Your task to perform on an android device: choose inbox layout in the gmail app Image 0: 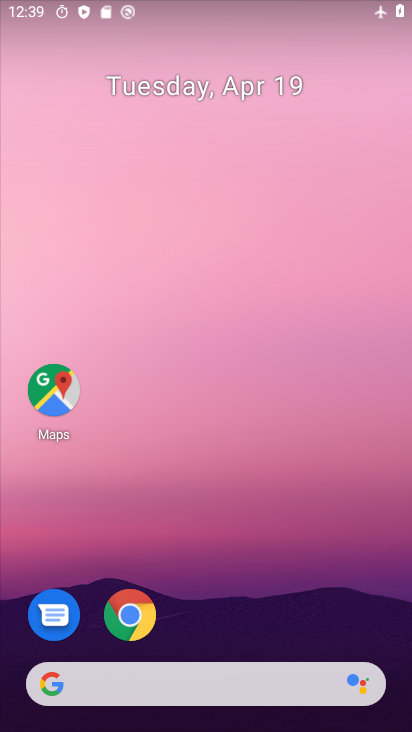
Step 0: drag from (387, 625) to (371, 100)
Your task to perform on an android device: choose inbox layout in the gmail app Image 1: 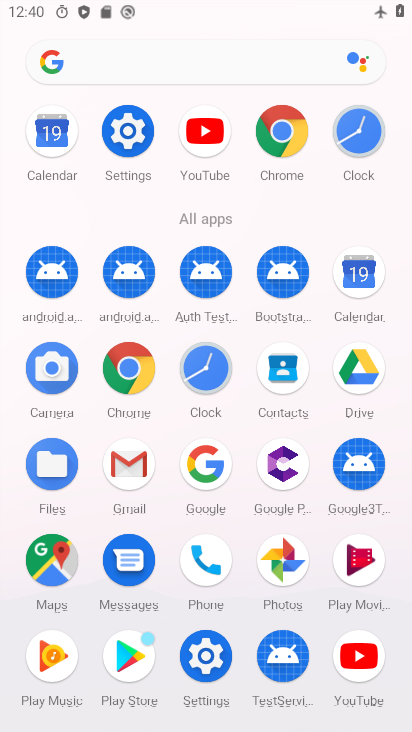
Step 1: click (137, 473)
Your task to perform on an android device: choose inbox layout in the gmail app Image 2: 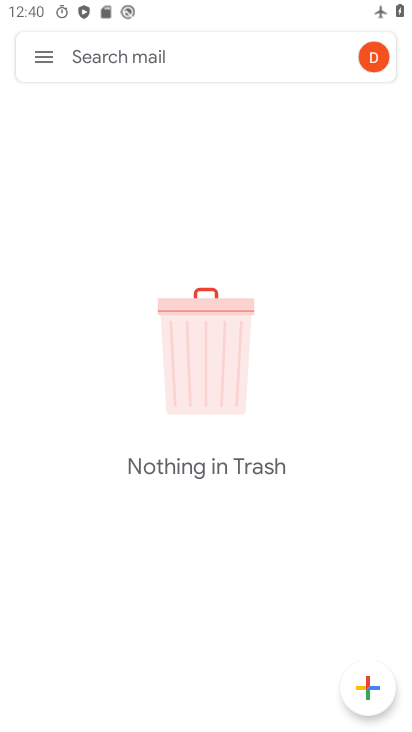
Step 2: click (40, 48)
Your task to perform on an android device: choose inbox layout in the gmail app Image 3: 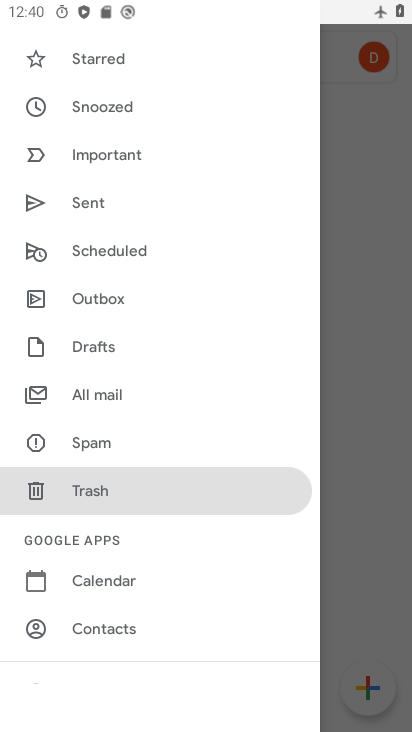
Step 3: drag from (233, 593) to (258, 375)
Your task to perform on an android device: choose inbox layout in the gmail app Image 4: 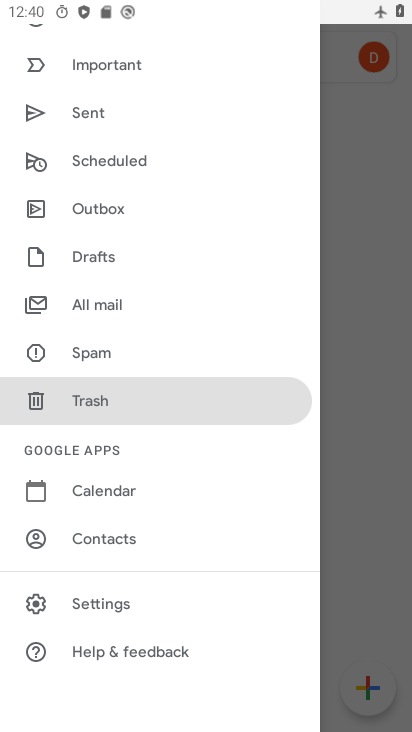
Step 4: click (98, 607)
Your task to perform on an android device: choose inbox layout in the gmail app Image 5: 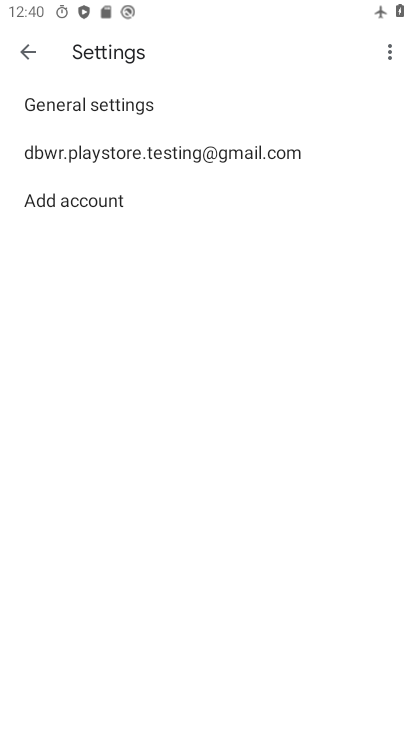
Step 5: click (199, 153)
Your task to perform on an android device: choose inbox layout in the gmail app Image 6: 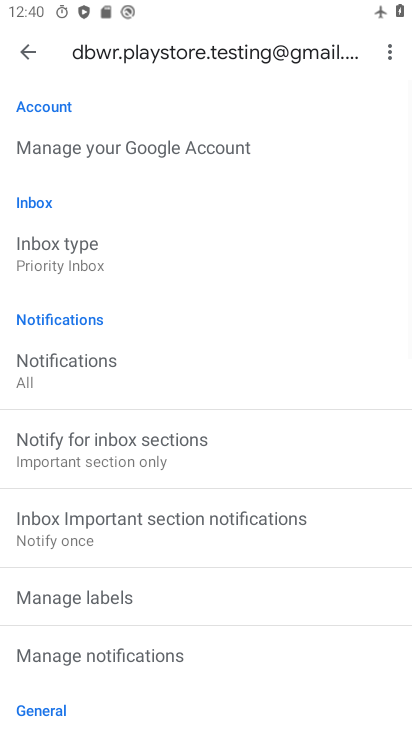
Step 6: drag from (343, 591) to (352, 376)
Your task to perform on an android device: choose inbox layout in the gmail app Image 7: 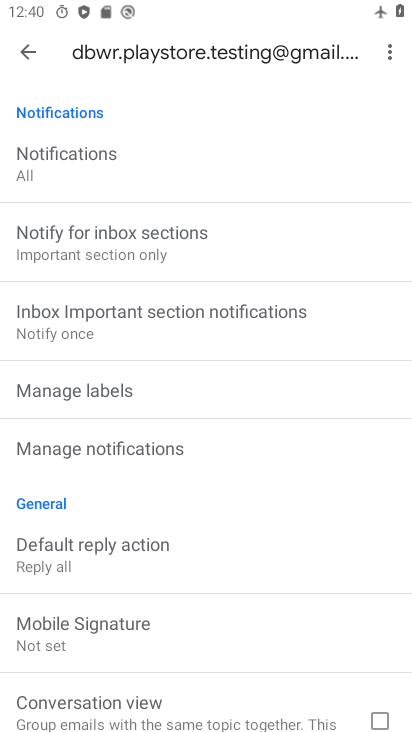
Step 7: drag from (345, 592) to (355, 373)
Your task to perform on an android device: choose inbox layout in the gmail app Image 8: 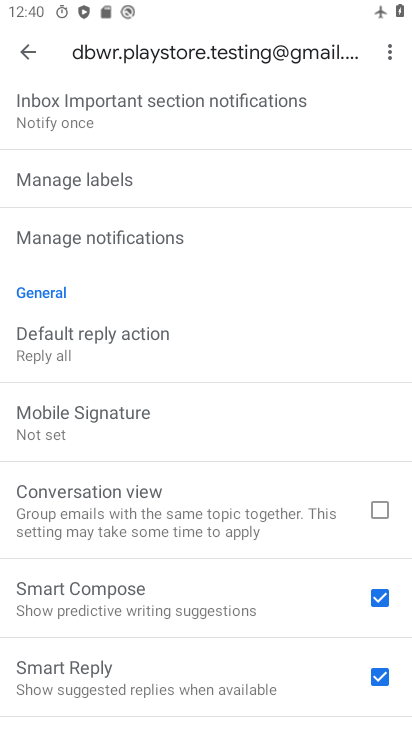
Step 8: drag from (324, 583) to (328, 337)
Your task to perform on an android device: choose inbox layout in the gmail app Image 9: 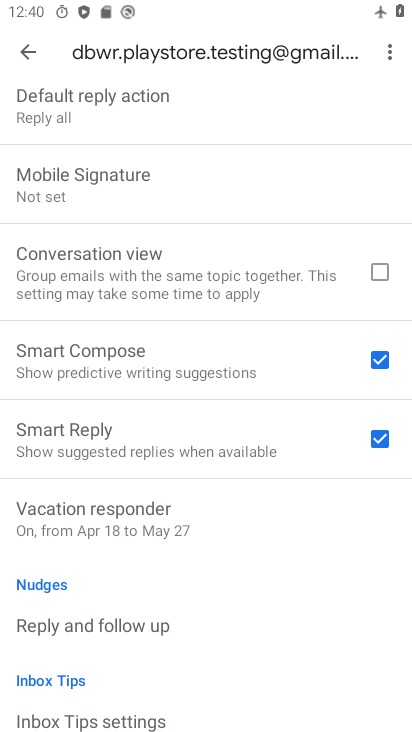
Step 9: drag from (346, 631) to (318, 375)
Your task to perform on an android device: choose inbox layout in the gmail app Image 10: 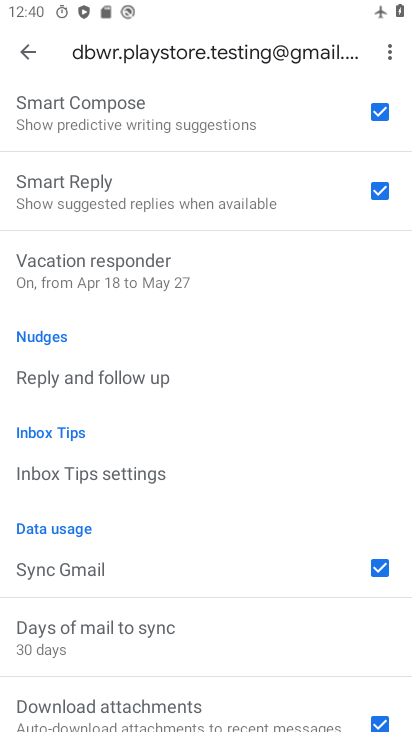
Step 10: drag from (314, 287) to (309, 499)
Your task to perform on an android device: choose inbox layout in the gmail app Image 11: 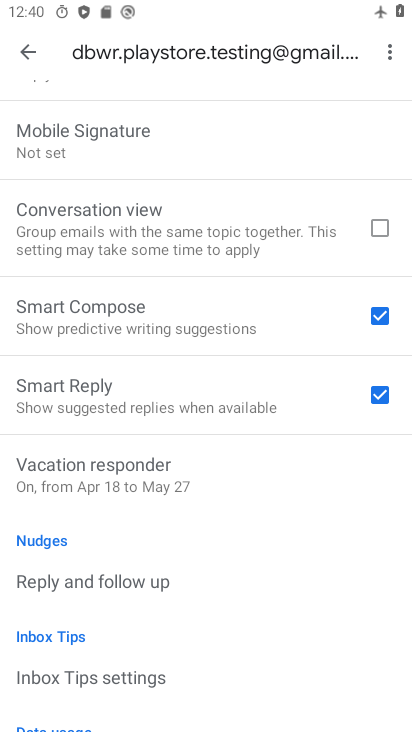
Step 11: drag from (308, 292) to (322, 483)
Your task to perform on an android device: choose inbox layout in the gmail app Image 12: 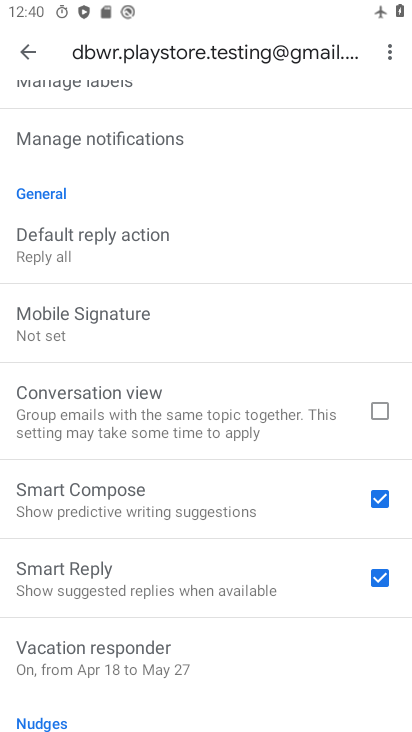
Step 12: drag from (306, 223) to (286, 436)
Your task to perform on an android device: choose inbox layout in the gmail app Image 13: 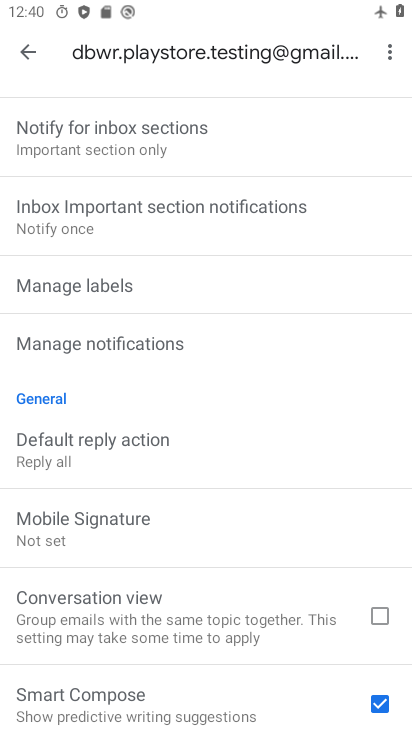
Step 13: drag from (305, 250) to (288, 523)
Your task to perform on an android device: choose inbox layout in the gmail app Image 14: 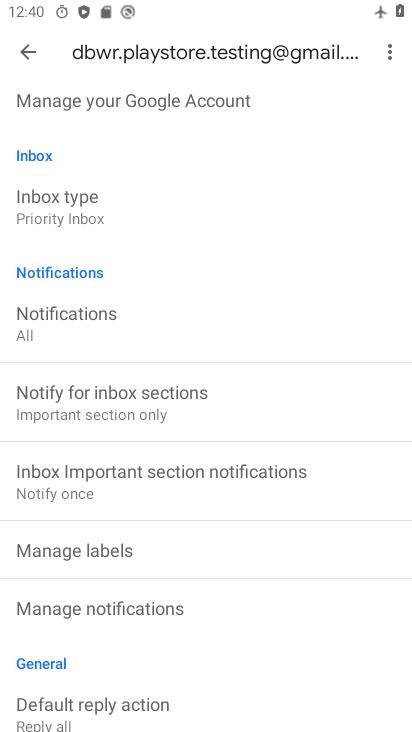
Step 14: click (70, 201)
Your task to perform on an android device: choose inbox layout in the gmail app Image 15: 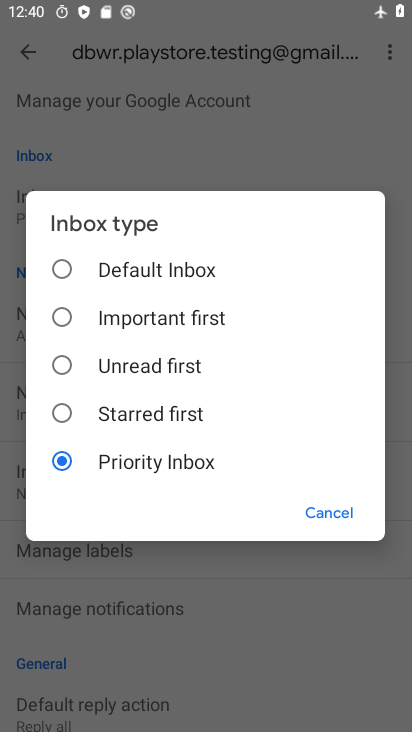
Step 15: click (59, 275)
Your task to perform on an android device: choose inbox layout in the gmail app Image 16: 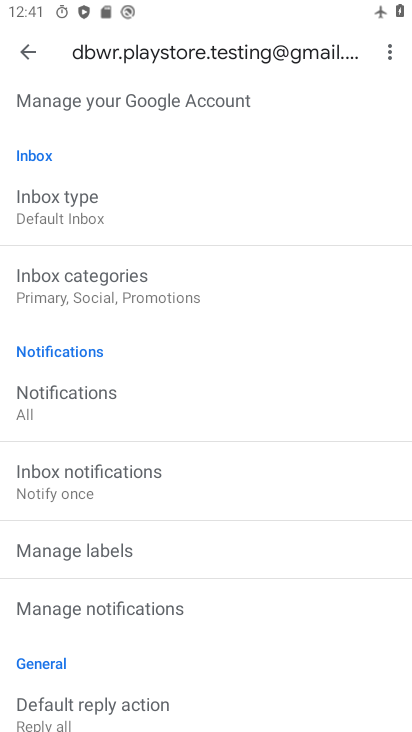
Step 16: task complete